Your task to perform on an android device: set default search engine in the chrome app Image 0: 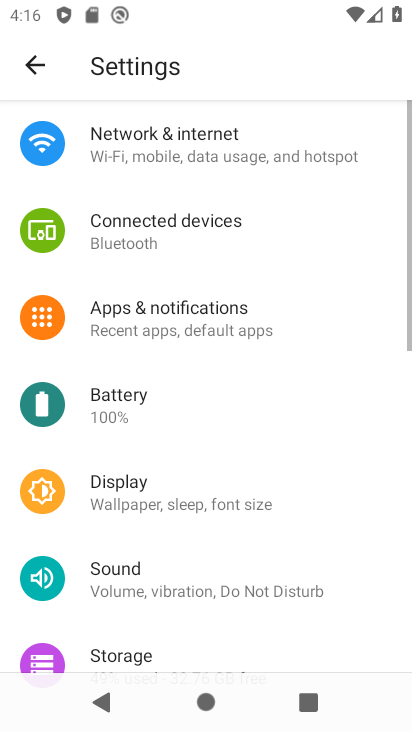
Step 0: press home button
Your task to perform on an android device: set default search engine in the chrome app Image 1: 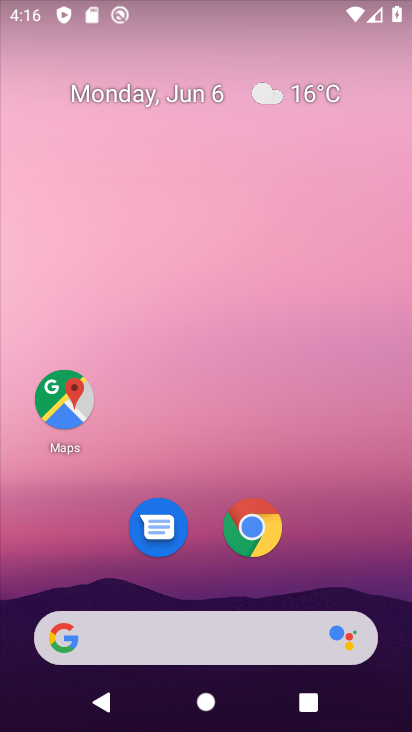
Step 1: click (248, 537)
Your task to perform on an android device: set default search engine in the chrome app Image 2: 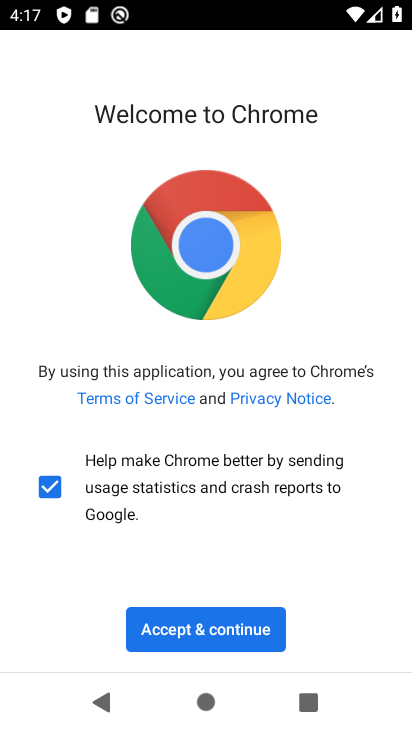
Step 2: click (189, 625)
Your task to perform on an android device: set default search engine in the chrome app Image 3: 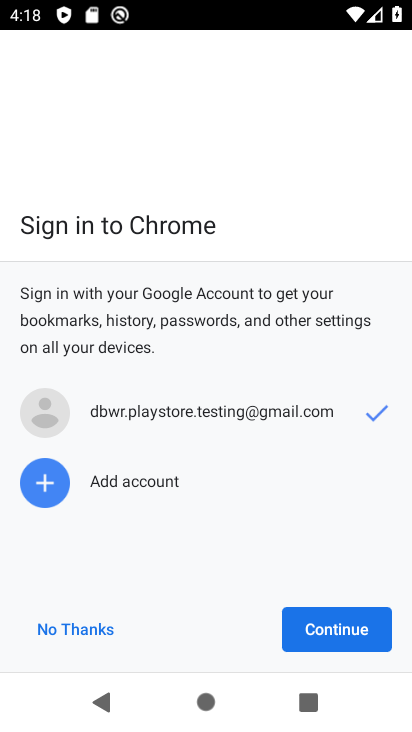
Step 3: click (310, 628)
Your task to perform on an android device: set default search engine in the chrome app Image 4: 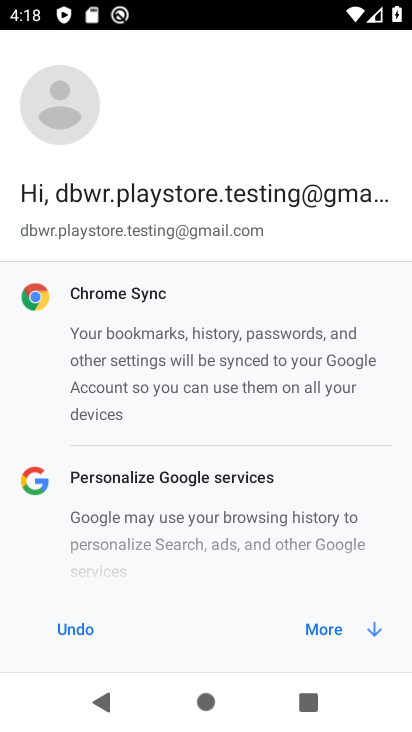
Step 4: click (323, 615)
Your task to perform on an android device: set default search engine in the chrome app Image 5: 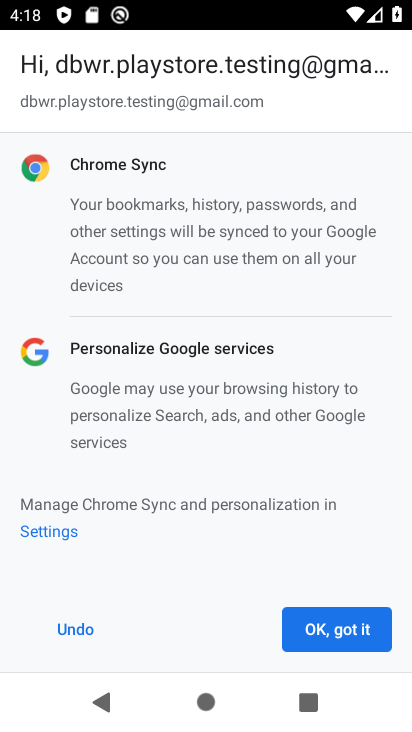
Step 5: click (332, 634)
Your task to perform on an android device: set default search engine in the chrome app Image 6: 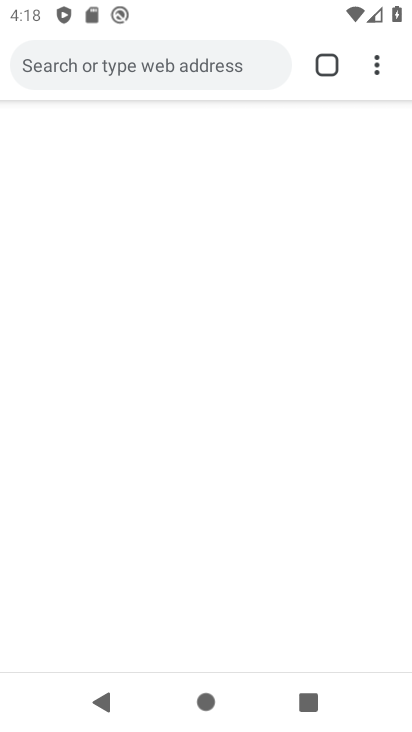
Step 6: click (373, 66)
Your task to perform on an android device: set default search engine in the chrome app Image 7: 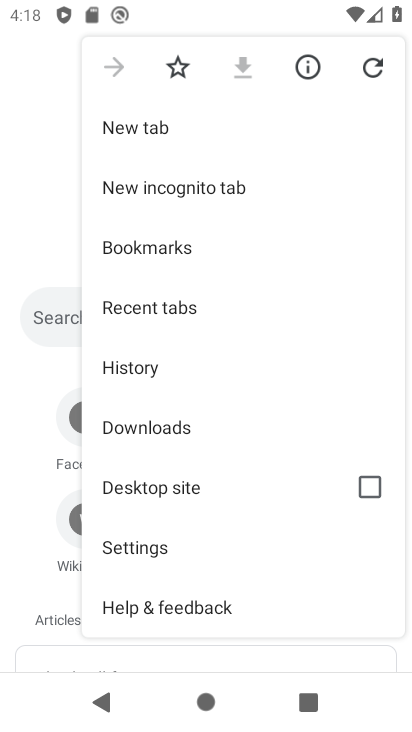
Step 7: click (150, 546)
Your task to perform on an android device: set default search engine in the chrome app Image 8: 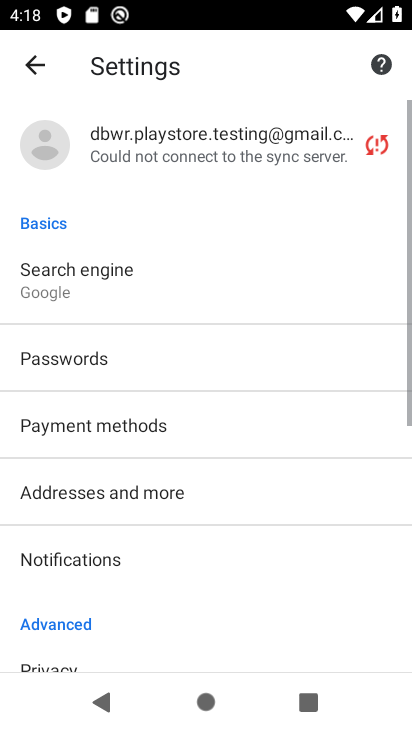
Step 8: click (96, 285)
Your task to perform on an android device: set default search engine in the chrome app Image 9: 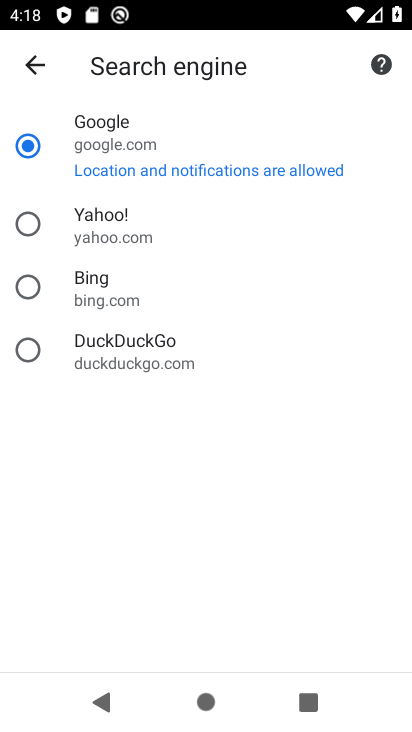
Step 9: task complete